Your task to perform on an android device: Show me recent news Image 0: 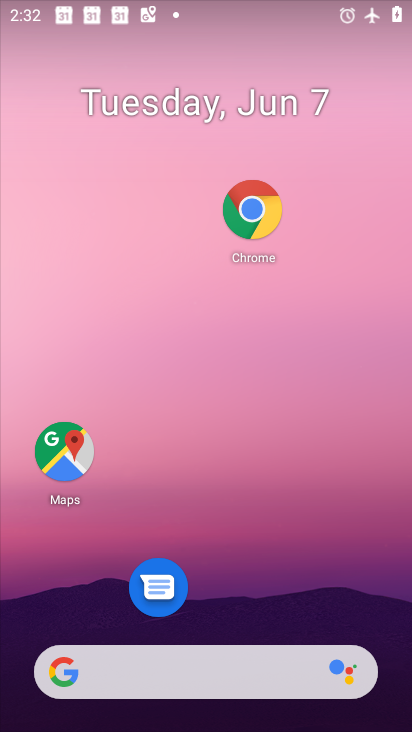
Step 0: drag from (264, 669) to (337, 148)
Your task to perform on an android device: Show me recent news Image 1: 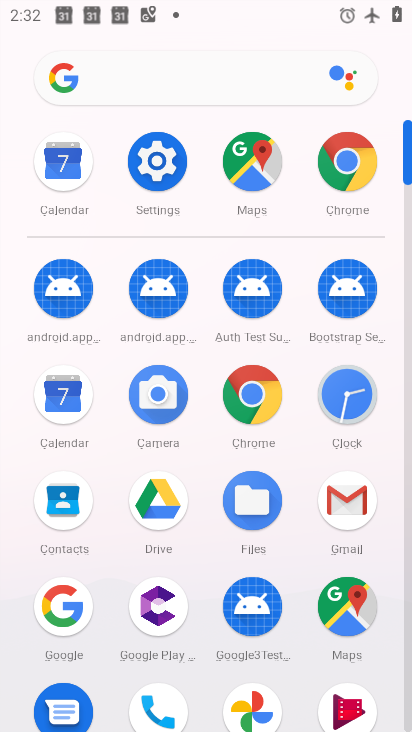
Step 1: click (65, 587)
Your task to perform on an android device: Show me recent news Image 2: 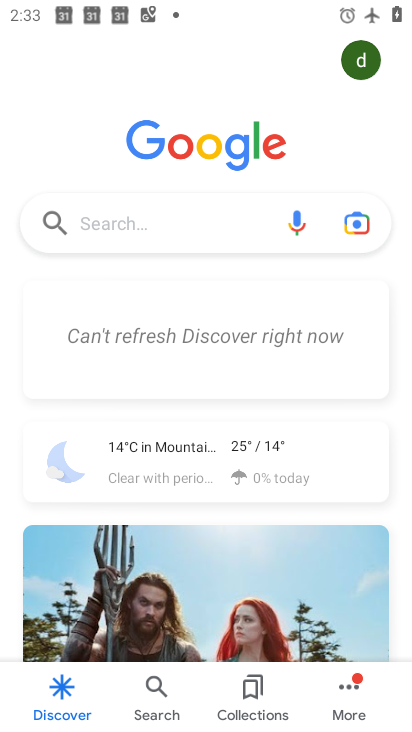
Step 2: click (185, 229)
Your task to perform on an android device: Show me recent news Image 3: 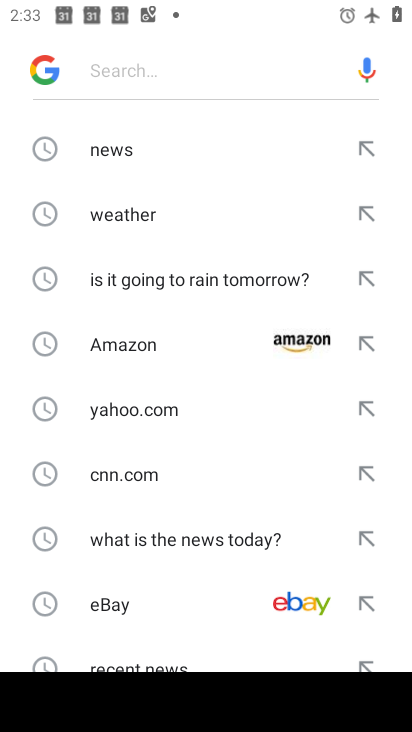
Step 3: click (178, 160)
Your task to perform on an android device: Show me recent news Image 4: 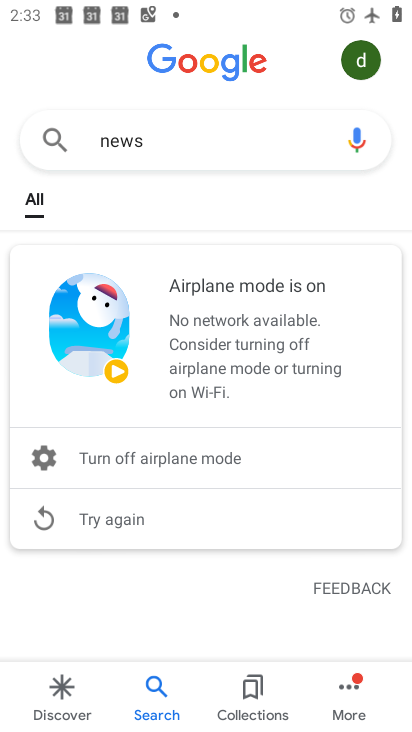
Step 4: task complete